Your task to perform on an android device: Open internet settings Image 0: 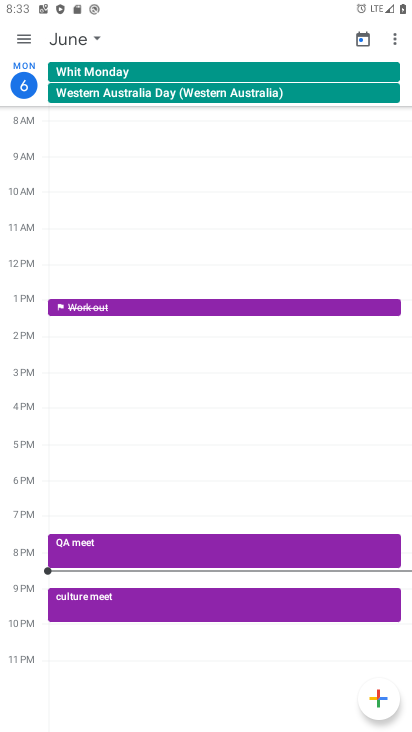
Step 0: press home button
Your task to perform on an android device: Open internet settings Image 1: 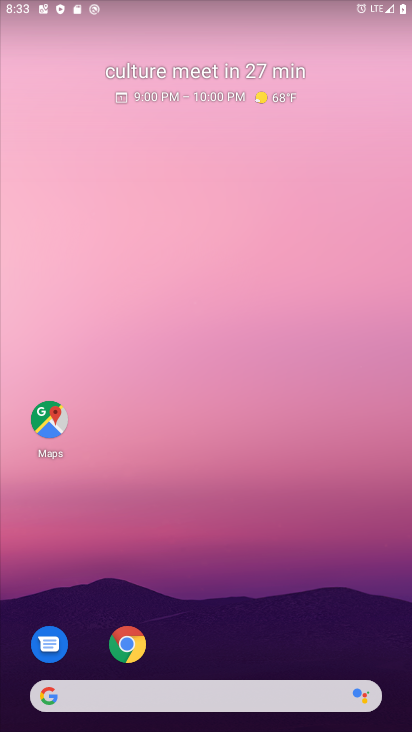
Step 1: drag from (230, 704) to (241, 144)
Your task to perform on an android device: Open internet settings Image 2: 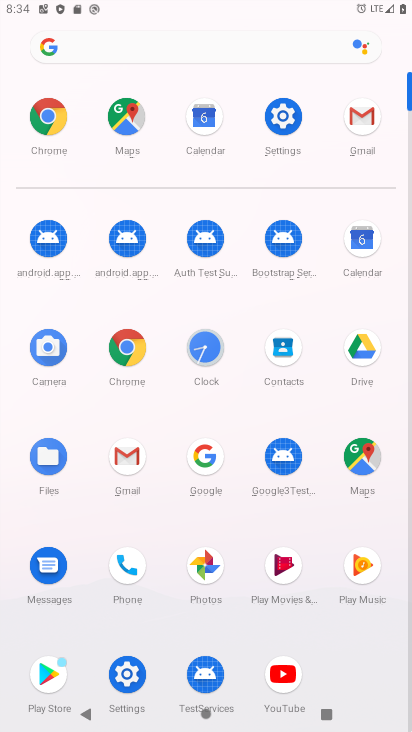
Step 2: click (272, 119)
Your task to perform on an android device: Open internet settings Image 3: 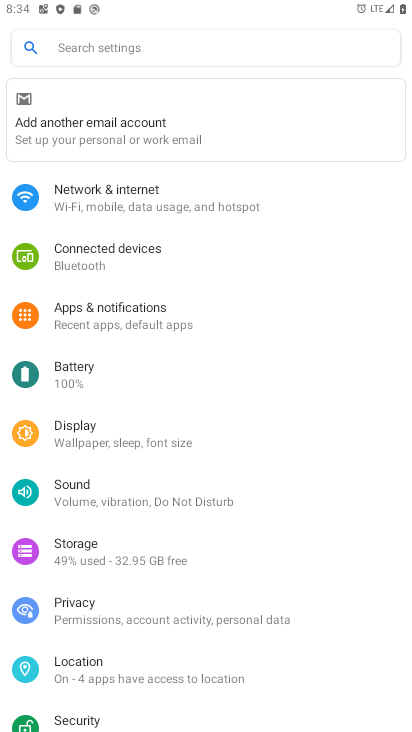
Step 3: click (129, 191)
Your task to perform on an android device: Open internet settings Image 4: 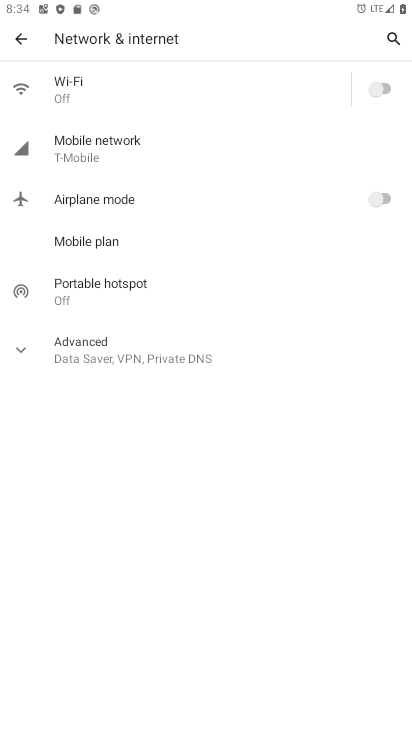
Step 4: task complete